Your task to perform on an android device: Go to settings Image 0: 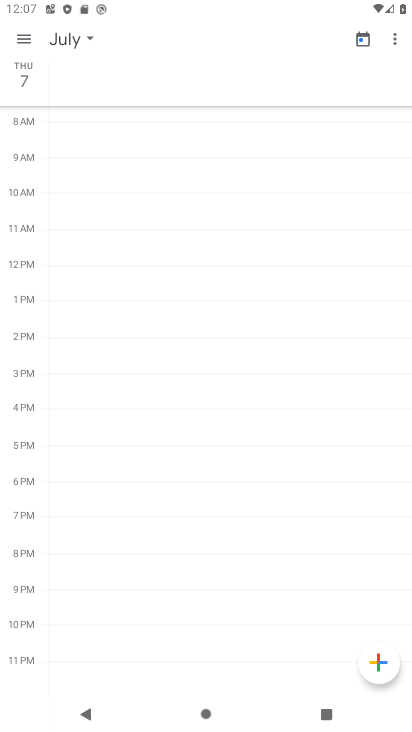
Step 0: click (289, 602)
Your task to perform on an android device: Go to settings Image 1: 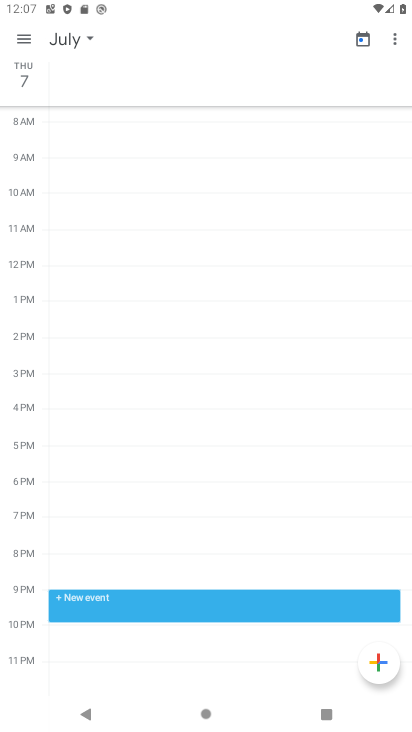
Step 1: press home button
Your task to perform on an android device: Go to settings Image 2: 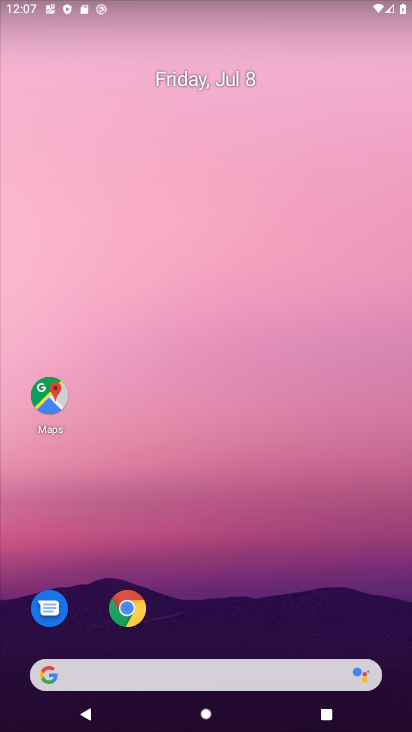
Step 2: drag from (271, 586) to (258, 76)
Your task to perform on an android device: Go to settings Image 3: 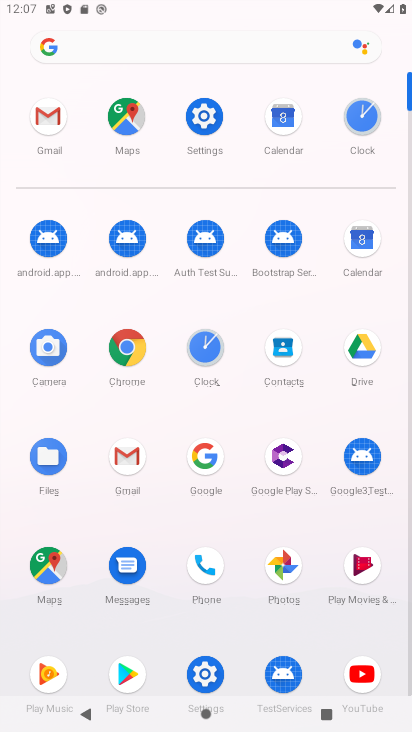
Step 3: click (208, 132)
Your task to perform on an android device: Go to settings Image 4: 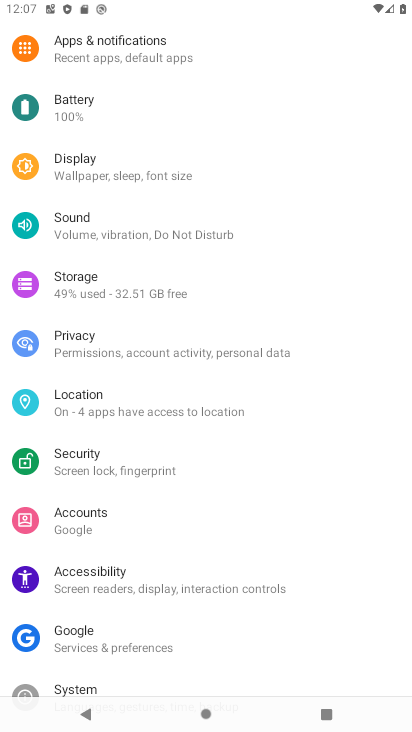
Step 4: task complete